Your task to perform on an android device: Open privacy settings Image 0: 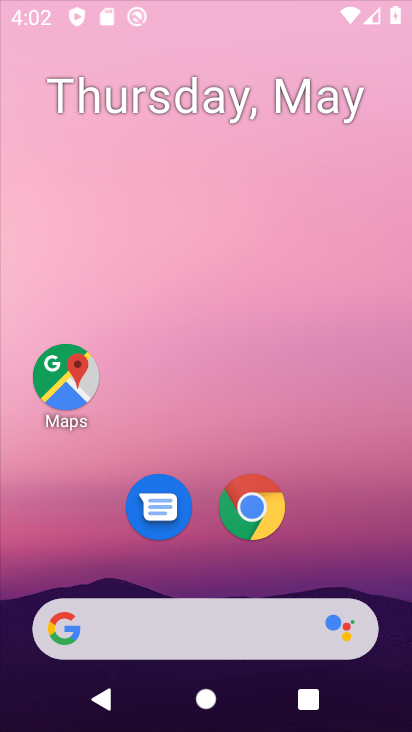
Step 0: drag from (363, 605) to (173, 0)
Your task to perform on an android device: Open privacy settings Image 1: 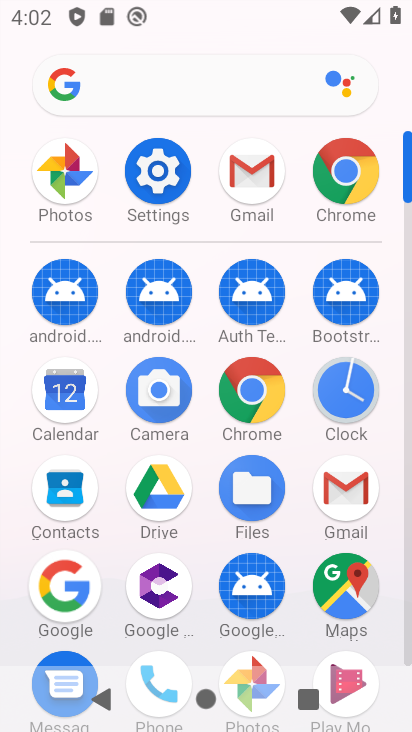
Step 1: click (148, 168)
Your task to perform on an android device: Open privacy settings Image 2: 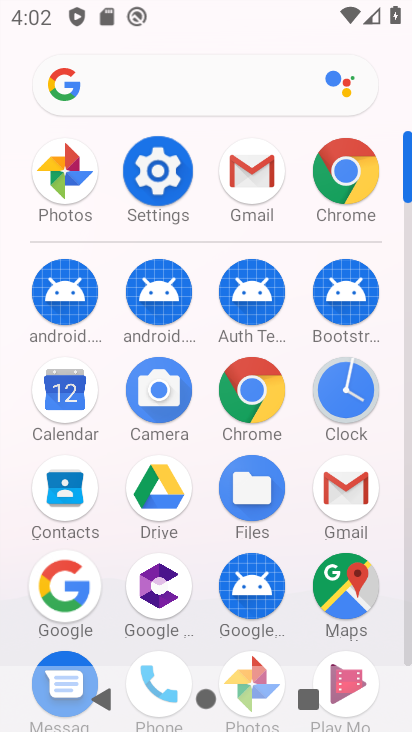
Step 2: click (148, 168)
Your task to perform on an android device: Open privacy settings Image 3: 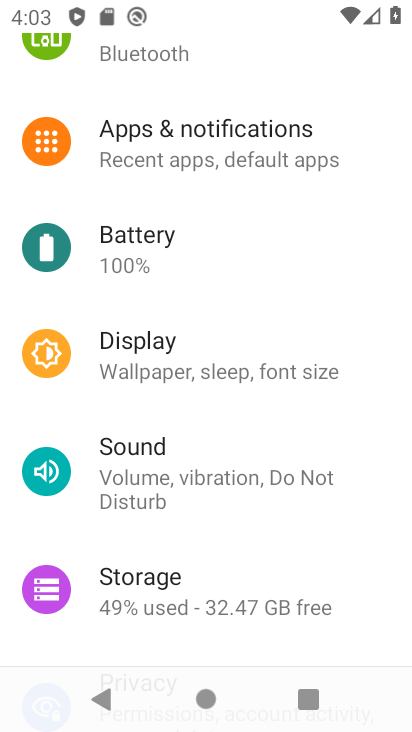
Step 3: drag from (175, 417) to (119, 94)
Your task to perform on an android device: Open privacy settings Image 4: 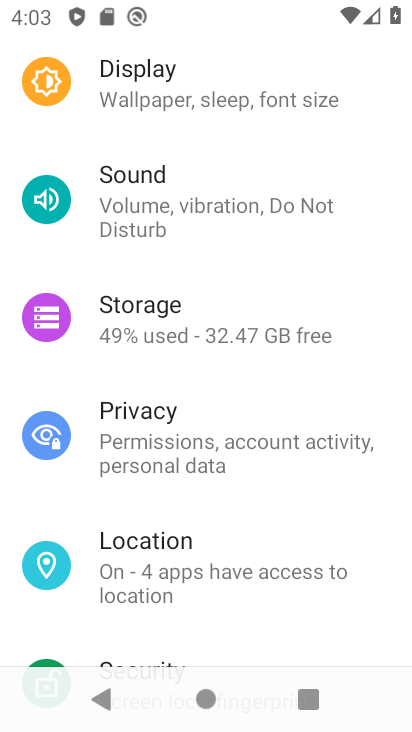
Step 4: drag from (186, 387) to (118, 83)
Your task to perform on an android device: Open privacy settings Image 5: 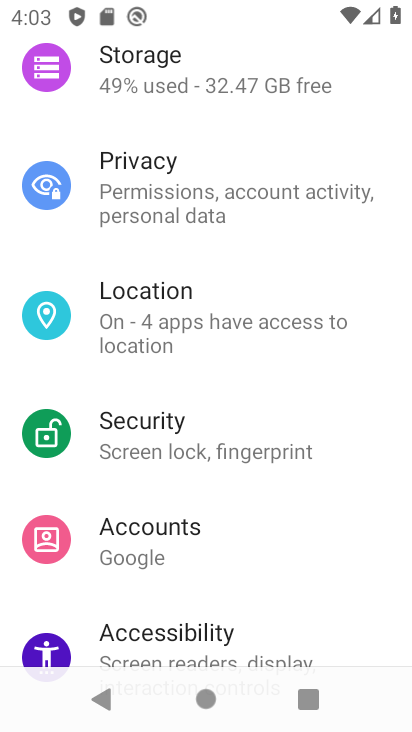
Step 5: drag from (188, 459) to (125, 151)
Your task to perform on an android device: Open privacy settings Image 6: 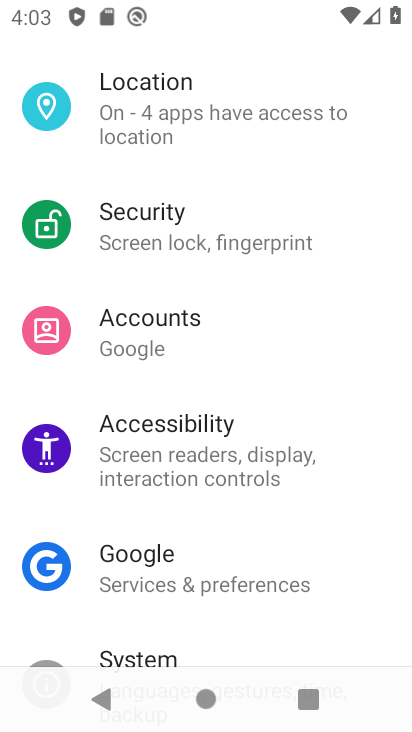
Step 6: drag from (218, 420) to (204, 23)
Your task to perform on an android device: Open privacy settings Image 7: 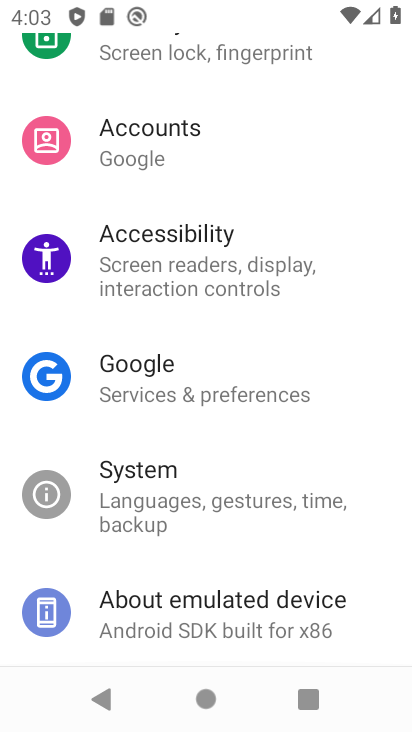
Step 7: drag from (208, 374) to (200, 120)
Your task to perform on an android device: Open privacy settings Image 8: 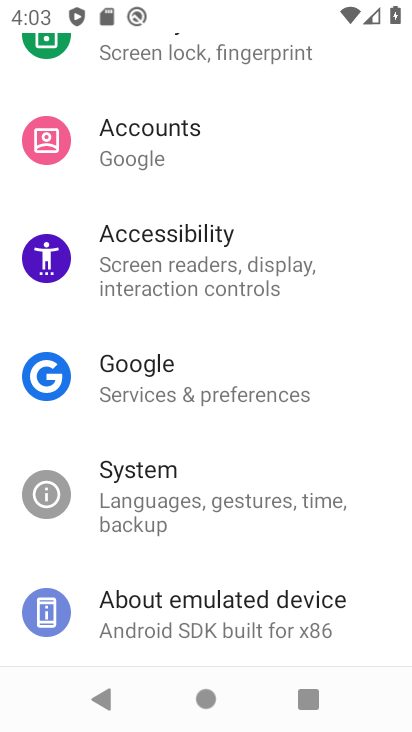
Step 8: drag from (141, 215) to (213, 648)
Your task to perform on an android device: Open privacy settings Image 9: 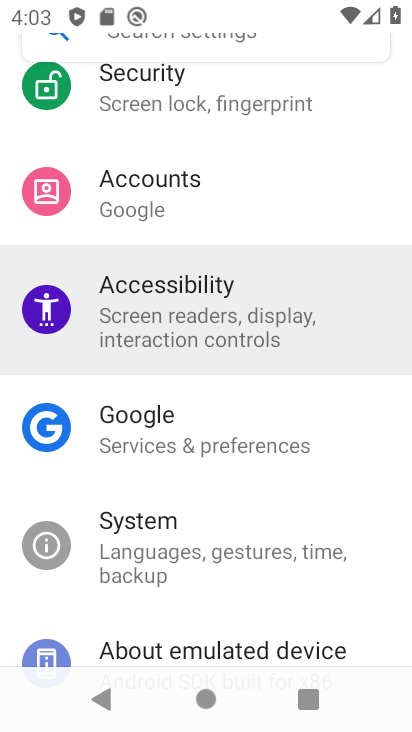
Step 9: drag from (134, 234) to (186, 548)
Your task to perform on an android device: Open privacy settings Image 10: 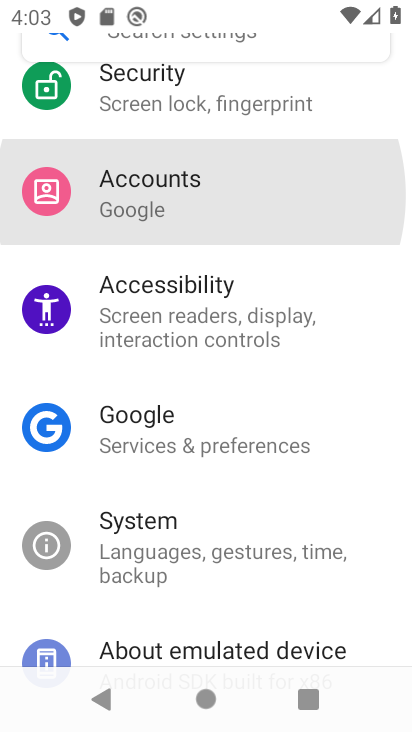
Step 10: drag from (188, 233) to (256, 662)
Your task to perform on an android device: Open privacy settings Image 11: 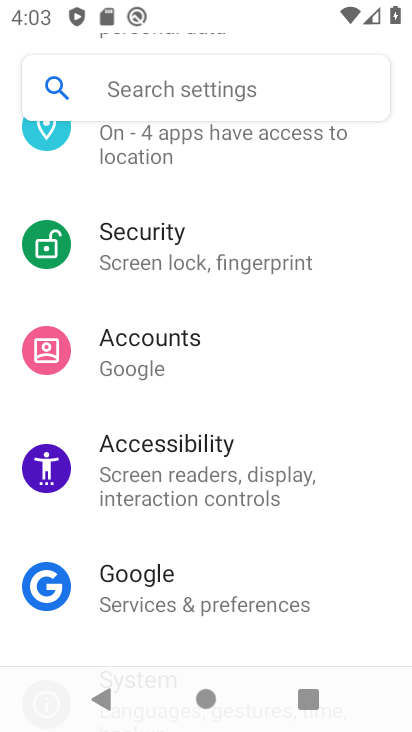
Step 11: drag from (216, 241) to (289, 725)
Your task to perform on an android device: Open privacy settings Image 12: 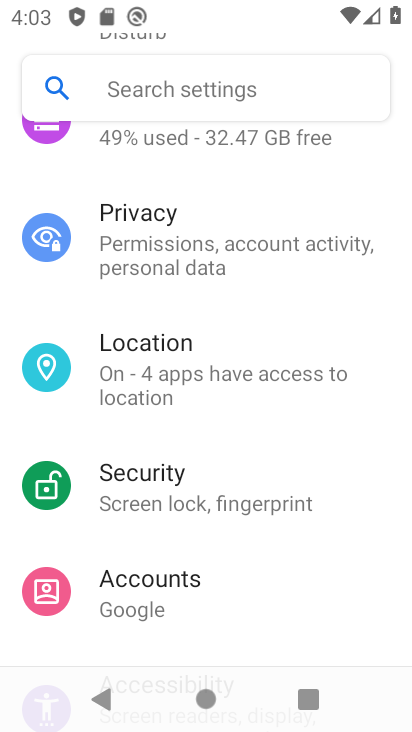
Step 12: drag from (208, 279) to (288, 570)
Your task to perform on an android device: Open privacy settings Image 13: 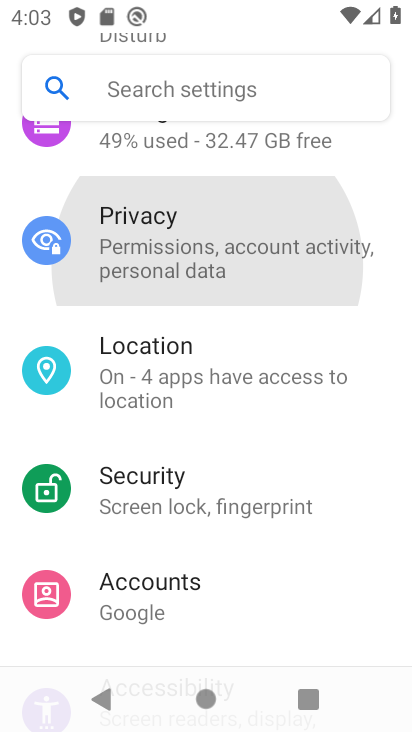
Step 13: drag from (234, 211) to (270, 581)
Your task to perform on an android device: Open privacy settings Image 14: 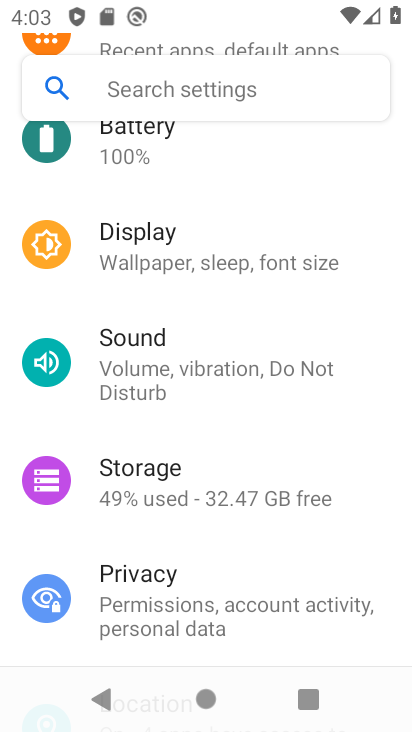
Step 14: drag from (159, 172) to (195, 534)
Your task to perform on an android device: Open privacy settings Image 15: 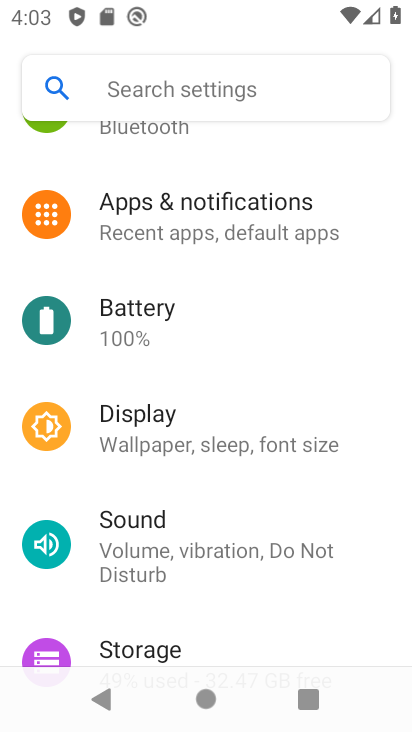
Step 15: drag from (178, 470) to (158, 92)
Your task to perform on an android device: Open privacy settings Image 16: 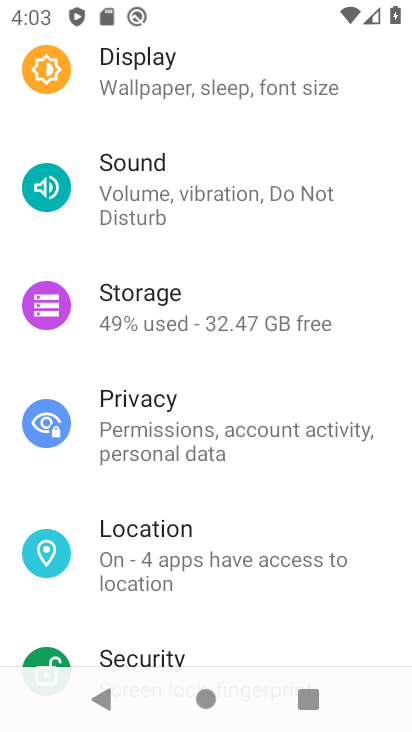
Step 16: drag from (192, 344) to (189, 67)
Your task to perform on an android device: Open privacy settings Image 17: 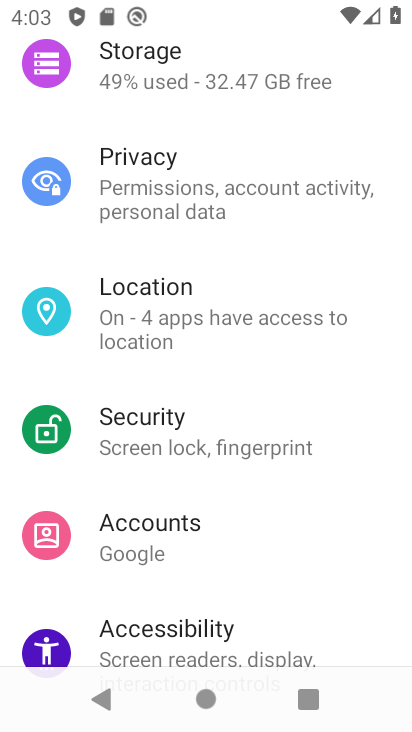
Step 17: click (151, 186)
Your task to perform on an android device: Open privacy settings Image 18: 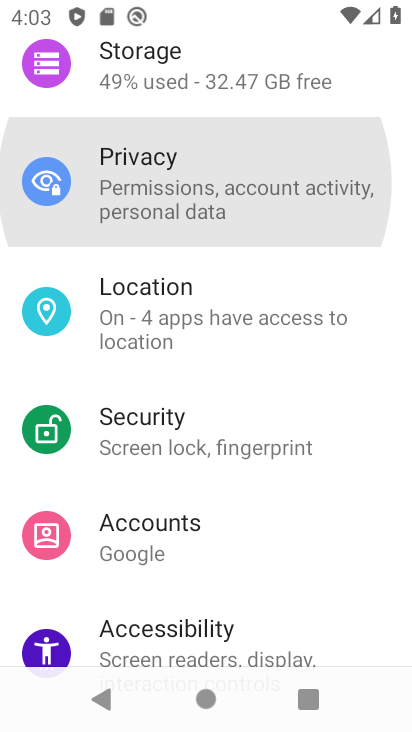
Step 18: click (151, 186)
Your task to perform on an android device: Open privacy settings Image 19: 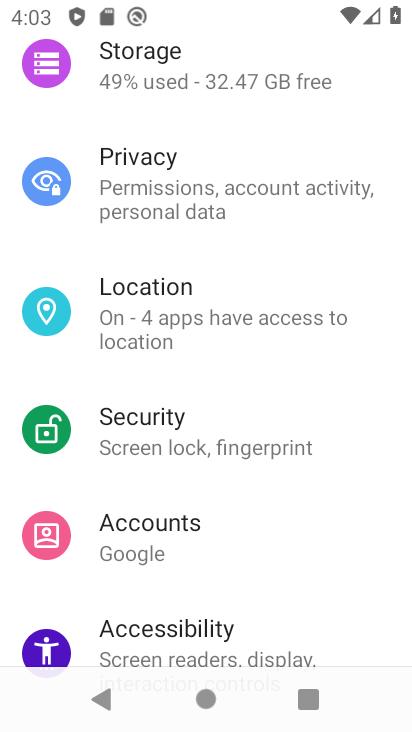
Step 19: click (153, 184)
Your task to perform on an android device: Open privacy settings Image 20: 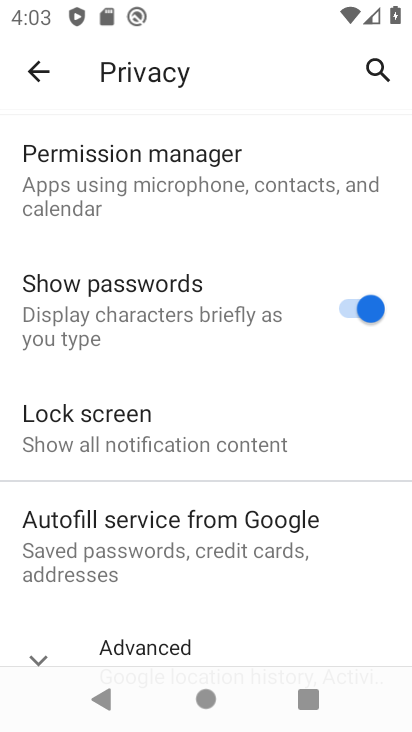
Step 20: task complete